Your task to perform on an android device: Open Android settings Image 0: 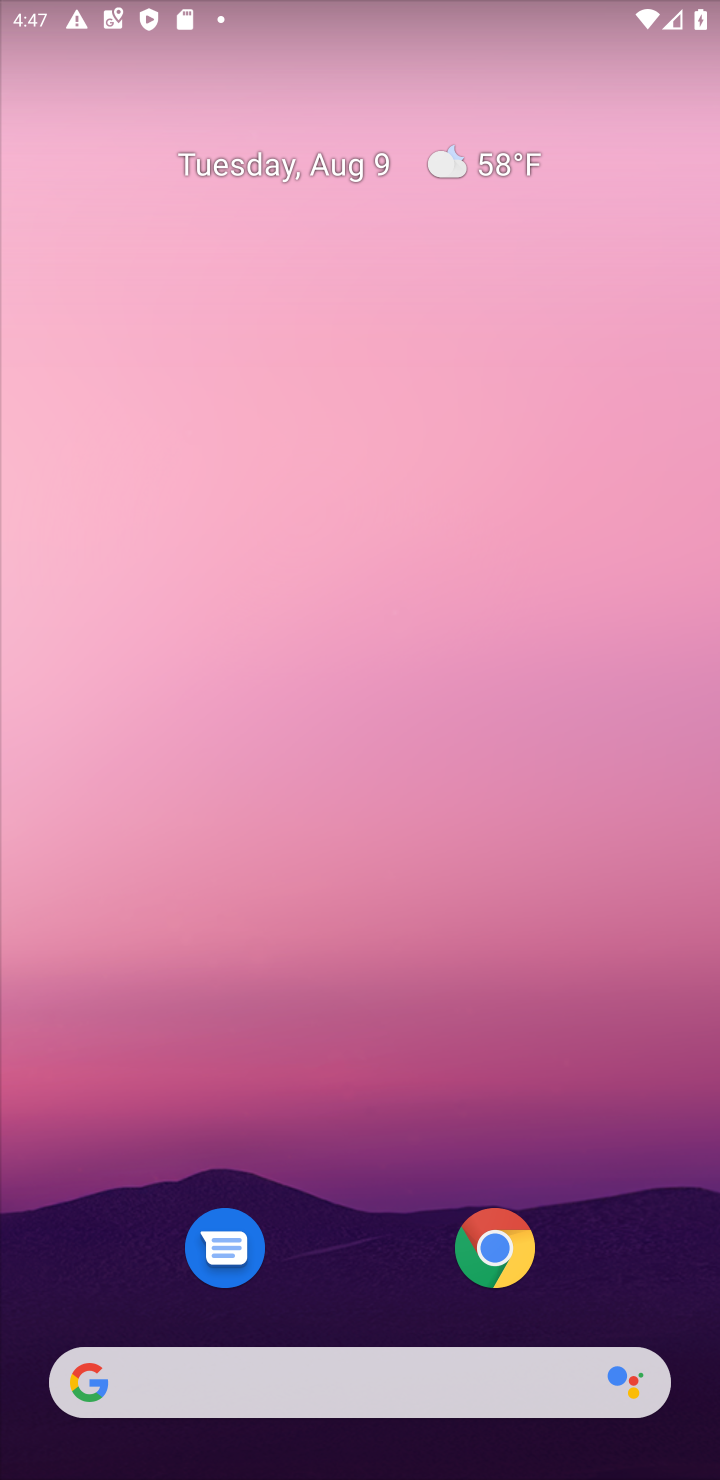
Step 0: drag from (425, 1081) to (344, 314)
Your task to perform on an android device: Open Android settings Image 1: 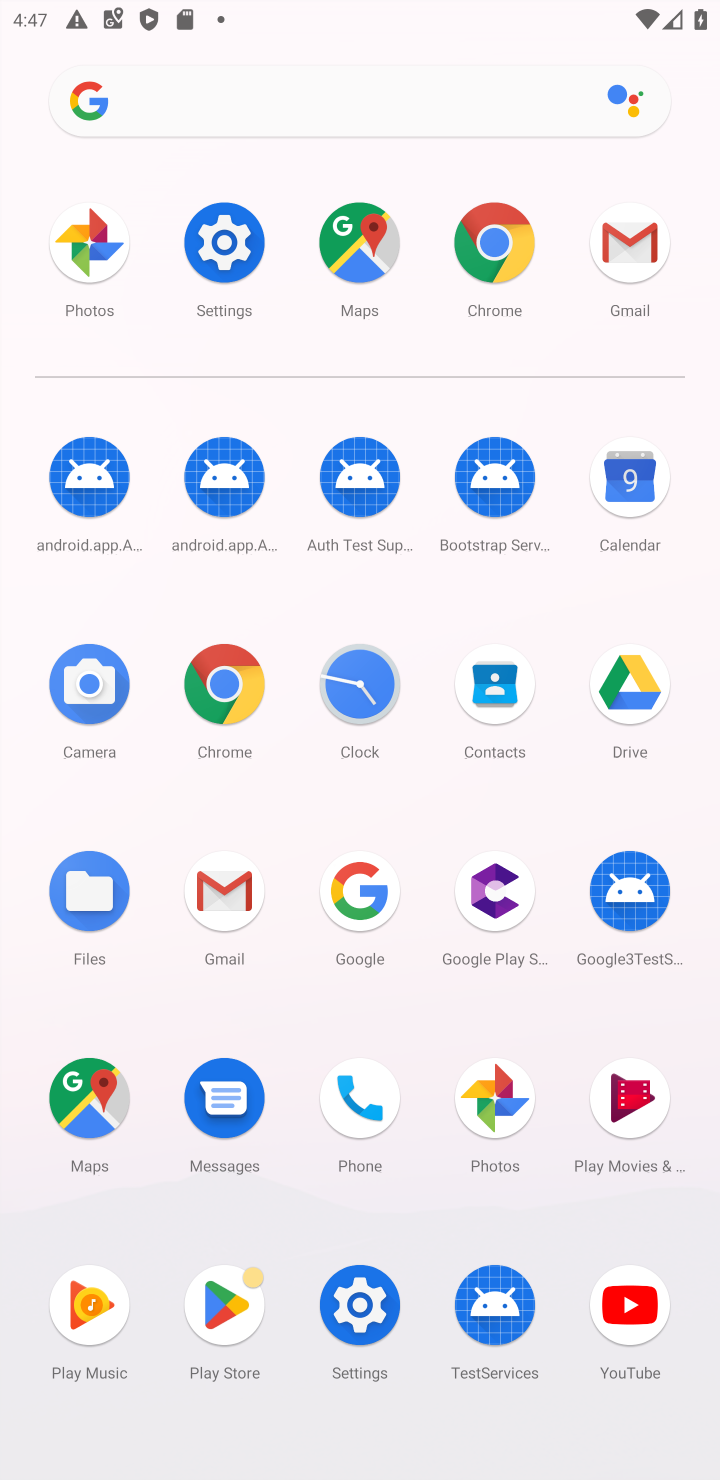
Step 1: click (226, 232)
Your task to perform on an android device: Open Android settings Image 2: 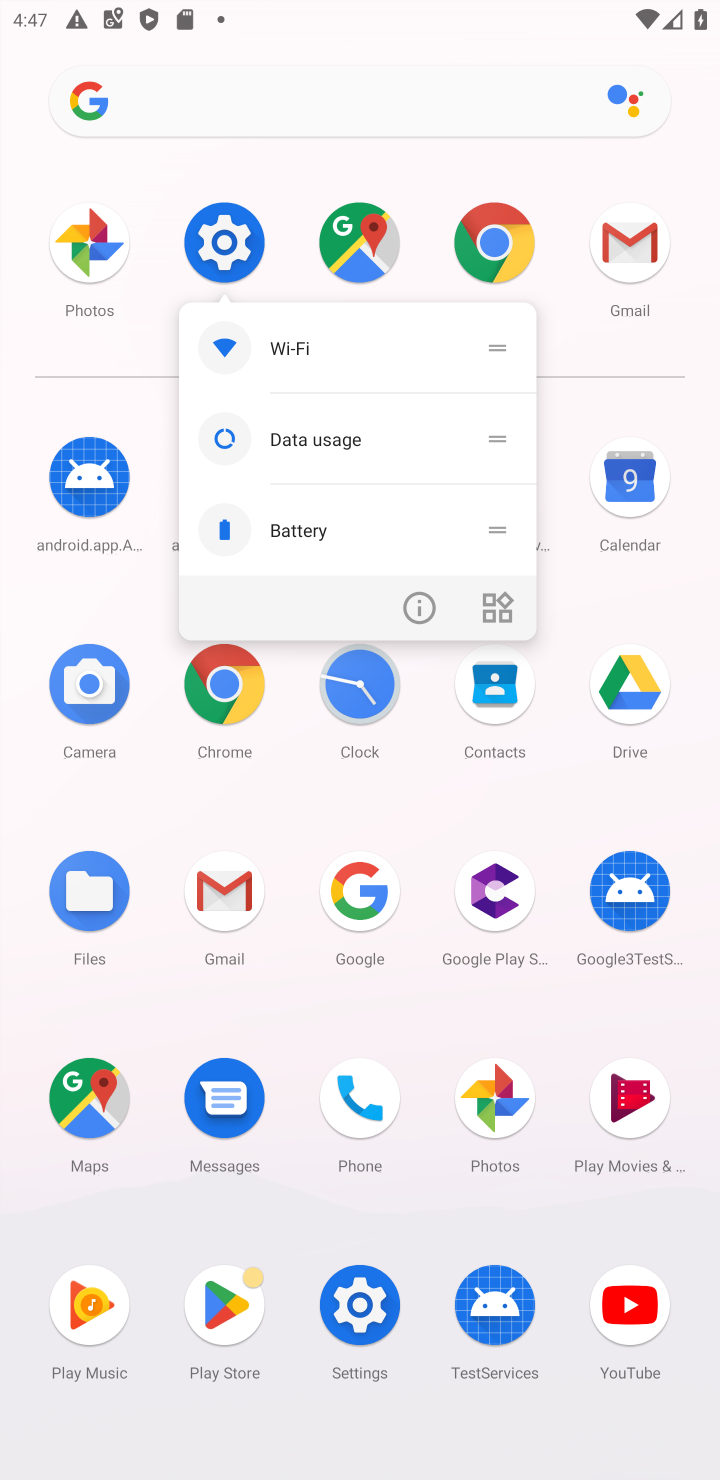
Step 2: click (226, 232)
Your task to perform on an android device: Open Android settings Image 3: 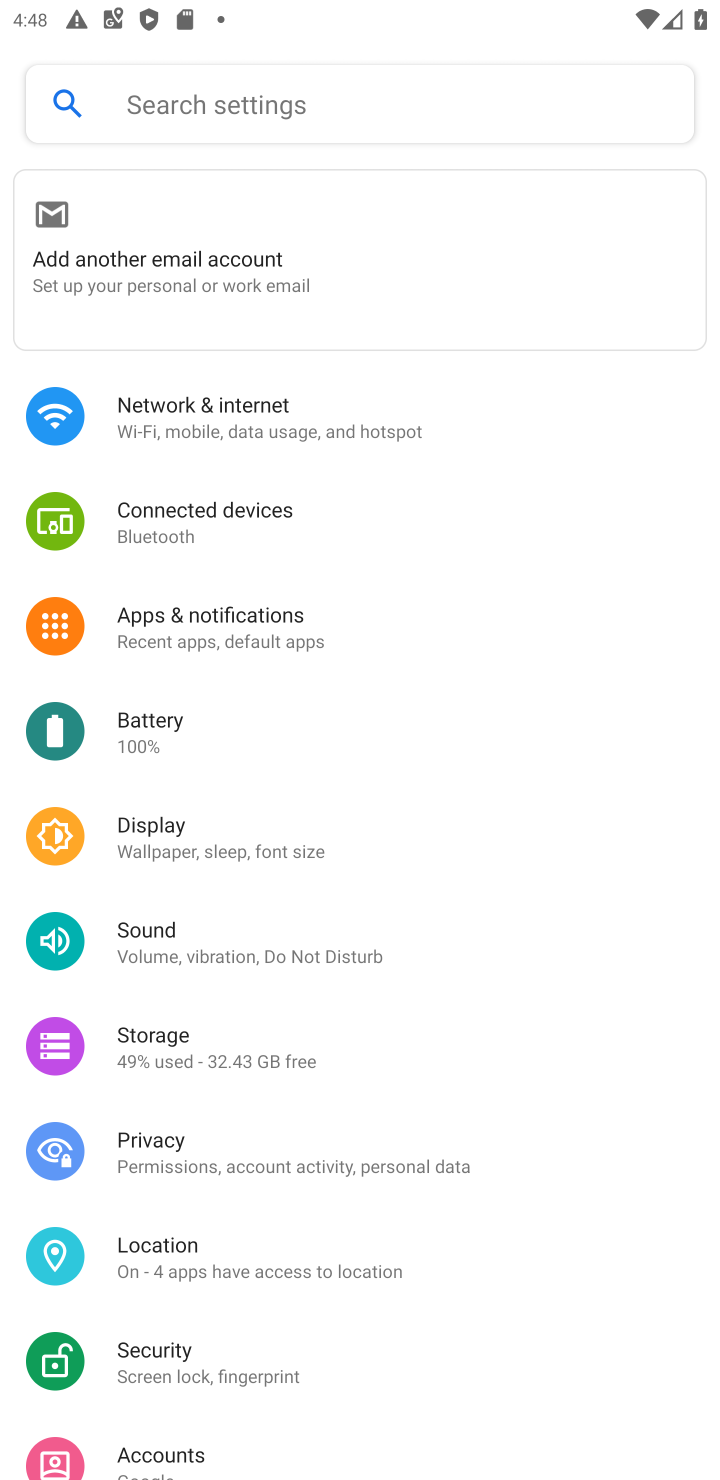
Step 3: task complete